Your task to perform on an android device: Go to Yahoo.com Image 0: 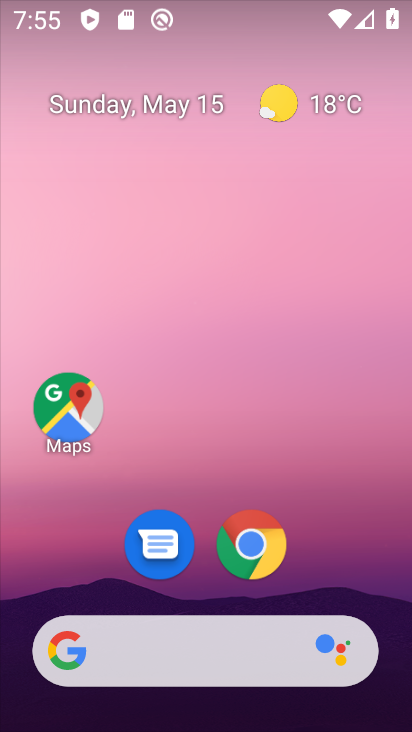
Step 0: click (277, 549)
Your task to perform on an android device: Go to Yahoo.com Image 1: 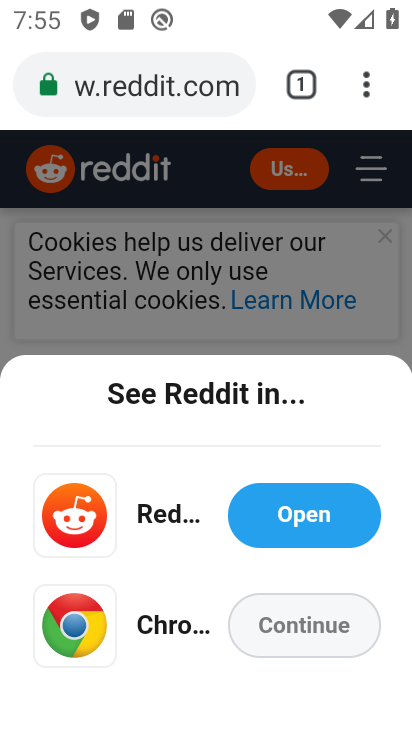
Step 1: click (299, 79)
Your task to perform on an android device: Go to Yahoo.com Image 2: 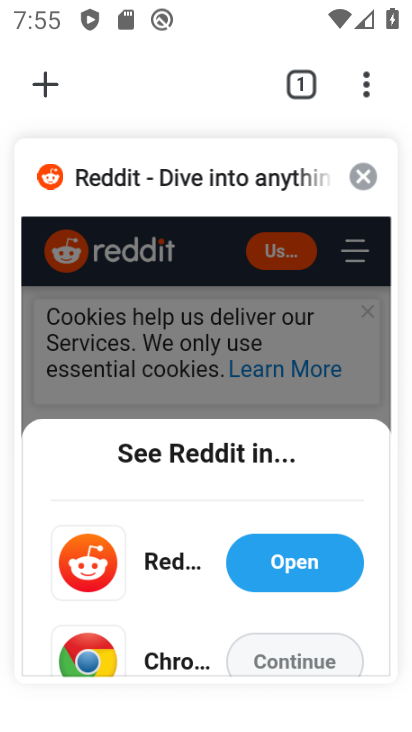
Step 2: click (53, 87)
Your task to perform on an android device: Go to Yahoo.com Image 3: 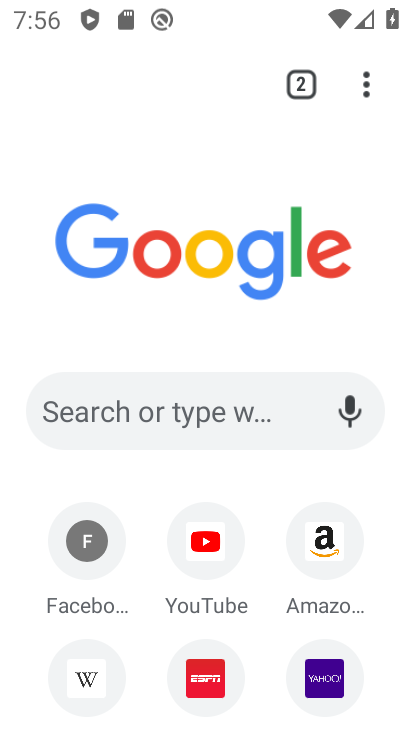
Step 3: click (311, 665)
Your task to perform on an android device: Go to Yahoo.com Image 4: 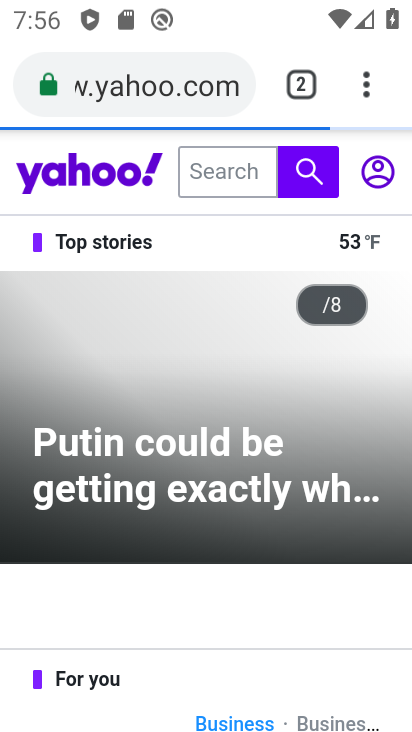
Step 4: task complete